Your task to perform on an android device: toggle translation in the chrome app Image 0: 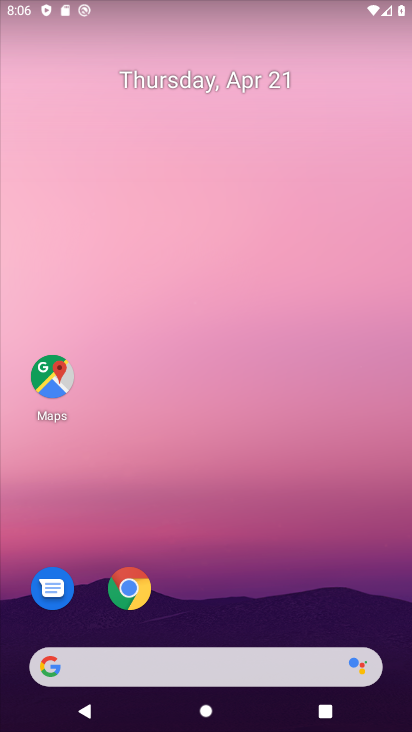
Step 0: click (124, 583)
Your task to perform on an android device: toggle translation in the chrome app Image 1: 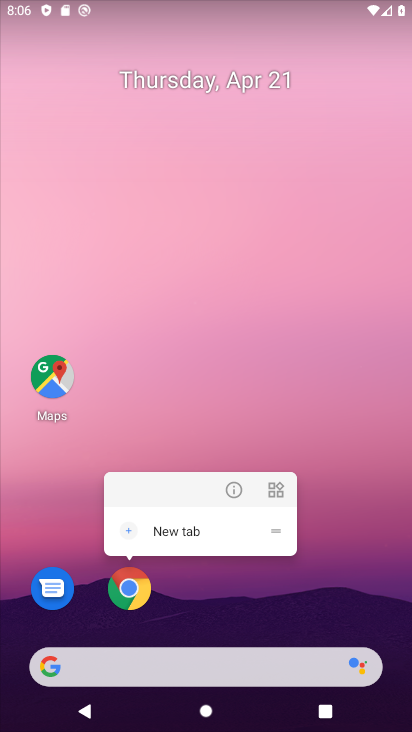
Step 1: click (123, 582)
Your task to perform on an android device: toggle translation in the chrome app Image 2: 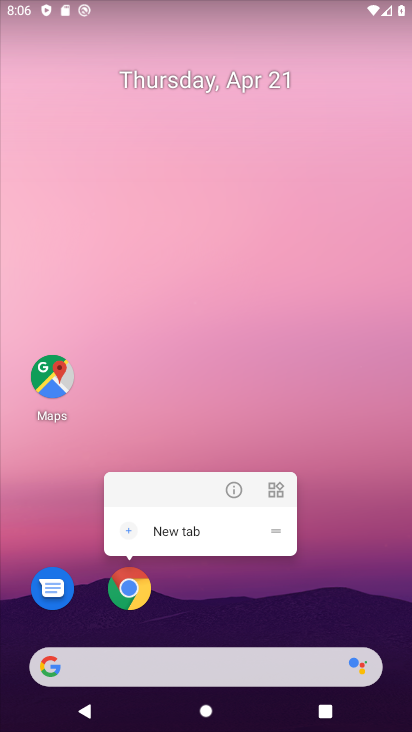
Step 2: click (123, 580)
Your task to perform on an android device: toggle translation in the chrome app Image 3: 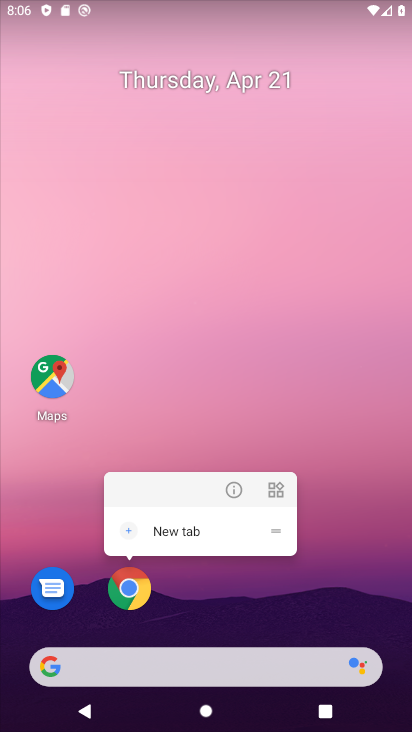
Step 3: click (123, 580)
Your task to perform on an android device: toggle translation in the chrome app Image 4: 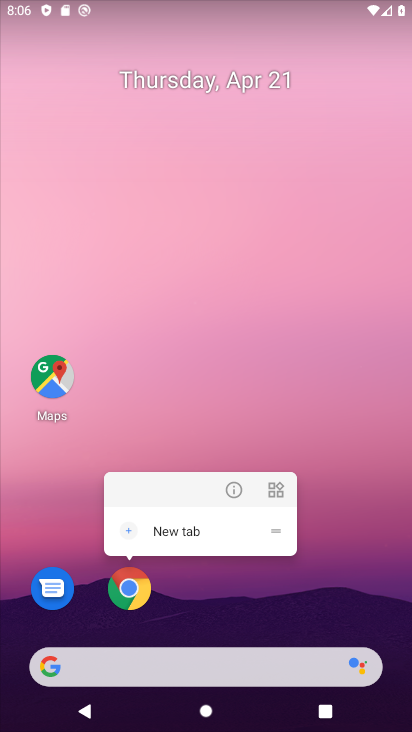
Step 4: click (123, 580)
Your task to perform on an android device: toggle translation in the chrome app Image 5: 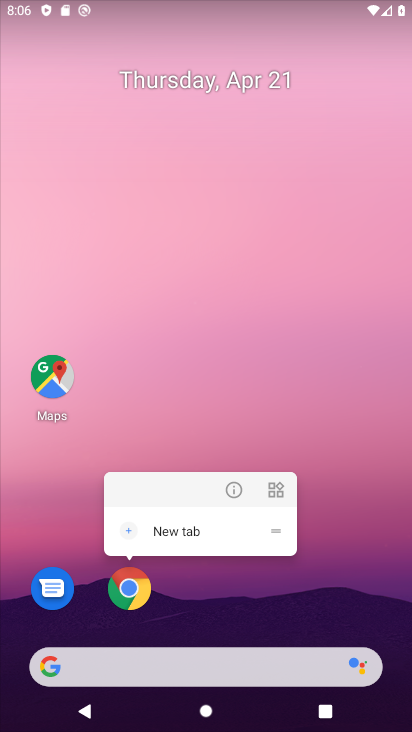
Step 5: click (131, 586)
Your task to perform on an android device: toggle translation in the chrome app Image 6: 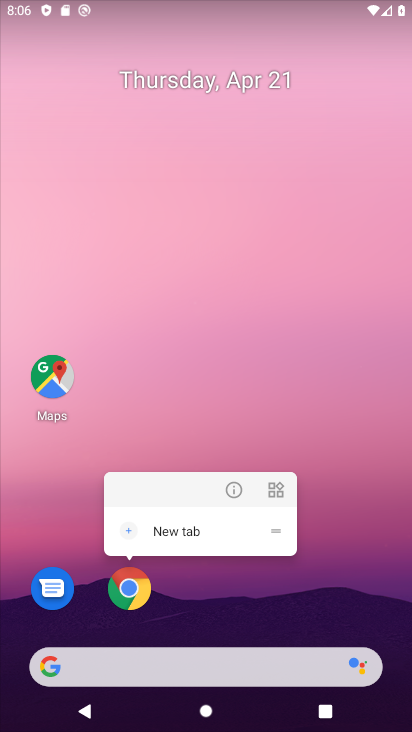
Step 6: click (131, 586)
Your task to perform on an android device: toggle translation in the chrome app Image 7: 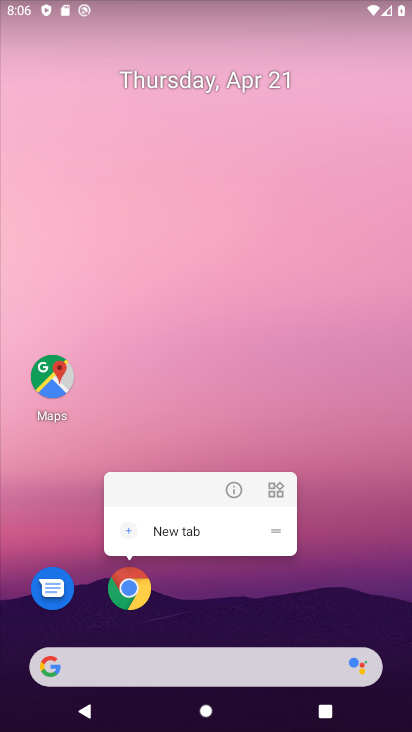
Step 7: click (131, 587)
Your task to perform on an android device: toggle translation in the chrome app Image 8: 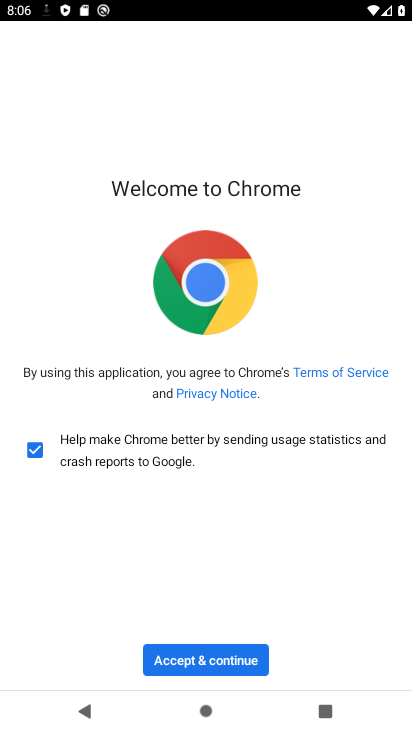
Step 8: click (183, 665)
Your task to perform on an android device: toggle translation in the chrome app Image 9: 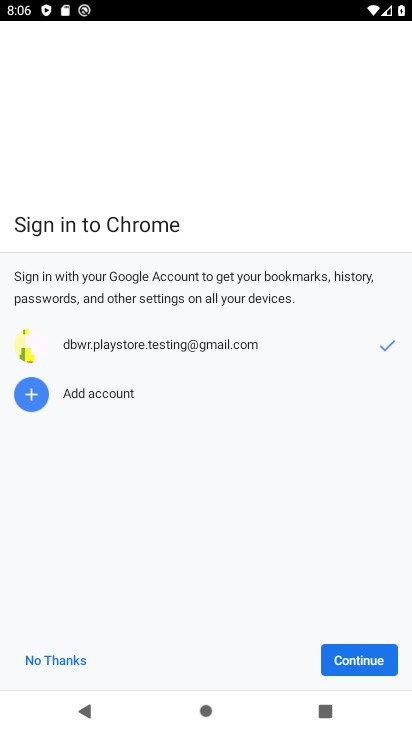
Step 9: click (364, 659)
Your task to perform on an android device: toggle translation in the chrome app Image 10: 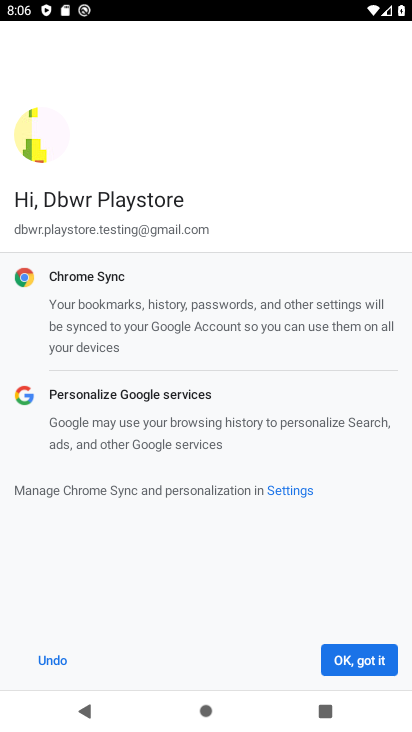
Step 10: click (359, 659)
Your task to perform on an android device: toggle translation in the chrome app Image 11: 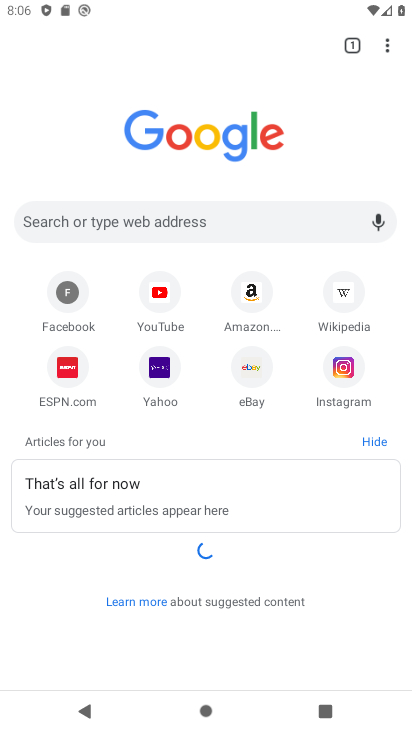
Step 11: click (388, 40)
Your task to perform on an android device: toggle translation in the chrome app Image 12: 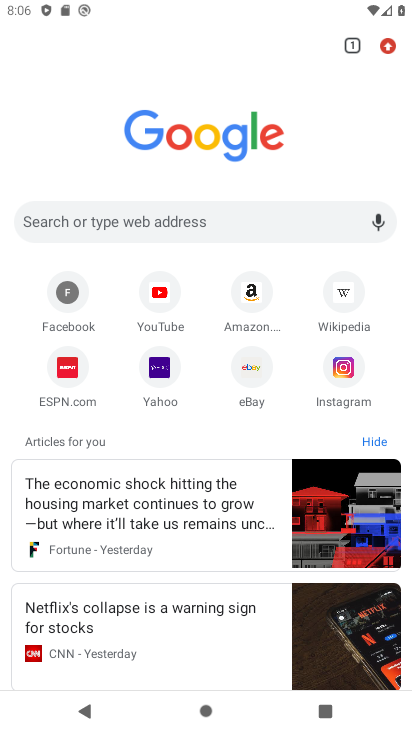
Step 12: click (389, 39)
Your task to perform on an android device: toggle translation in the chrome app Image 13: 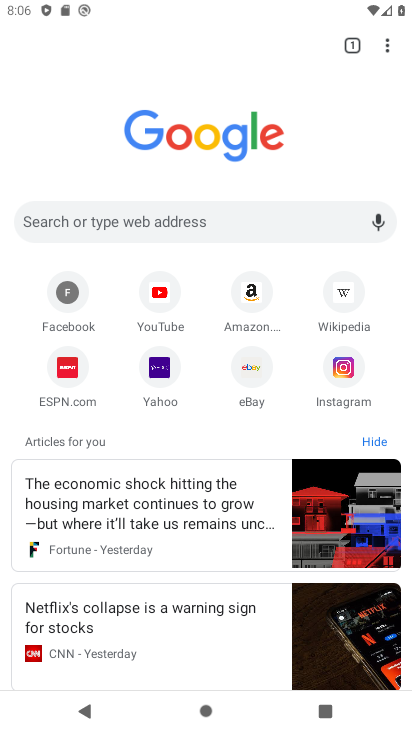
Step 13: click (391, 41)
Your task to perform on an android device: toggle translation in the chrome app Image 14: 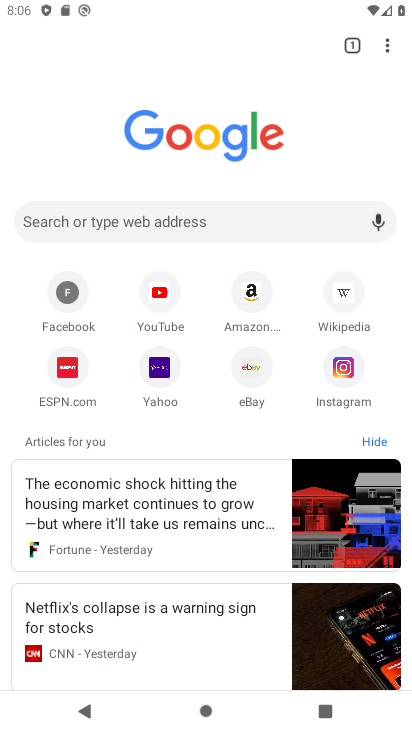
Step 14: click (391, 41)
Your task to perform on an android device: toggle translation in the chrome app Image 15: 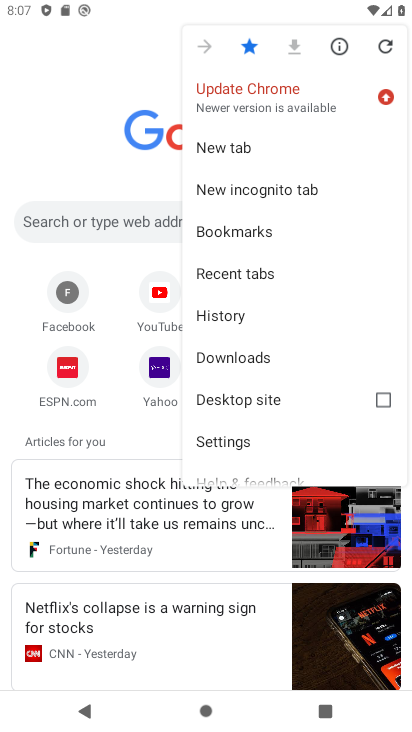
Step 15: click (247, 444)
Your task to perform on an android device: toggle translation in the chrome app Image 16: 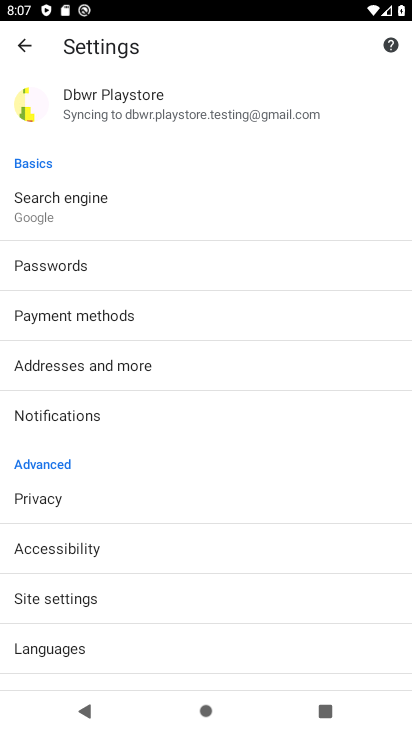
Step 16: click (101, 651)
Your task to perform on an android device: toggle translation in the chrome app Image 17: 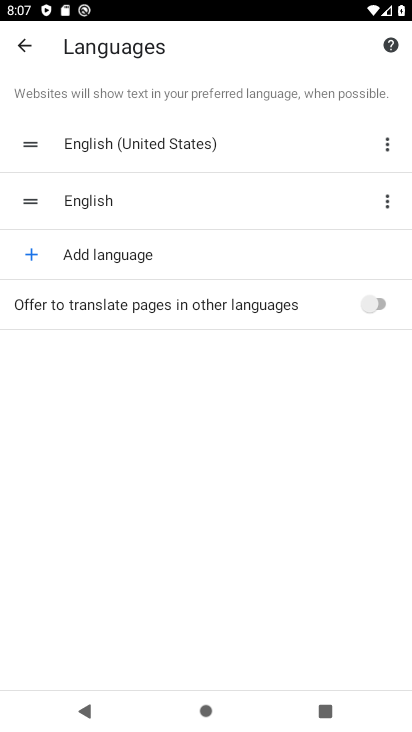
Step 17: click (379, 300)
Your task to perform on an android device: toggle translation in the chrome app Image 18: 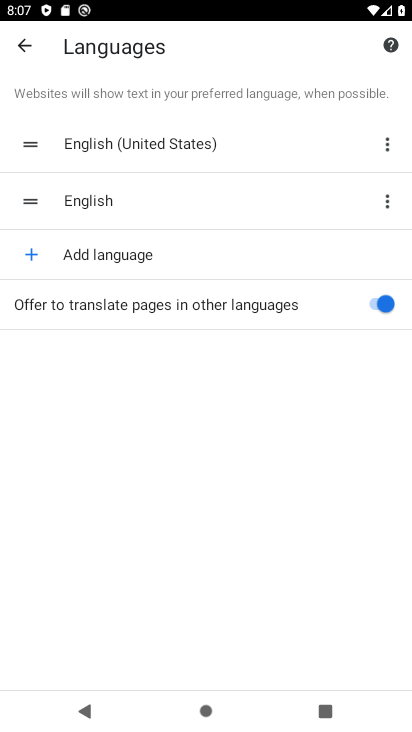
Step 18: task complete